Your task to perform on an android device: Turn off the flashlight Image 0: 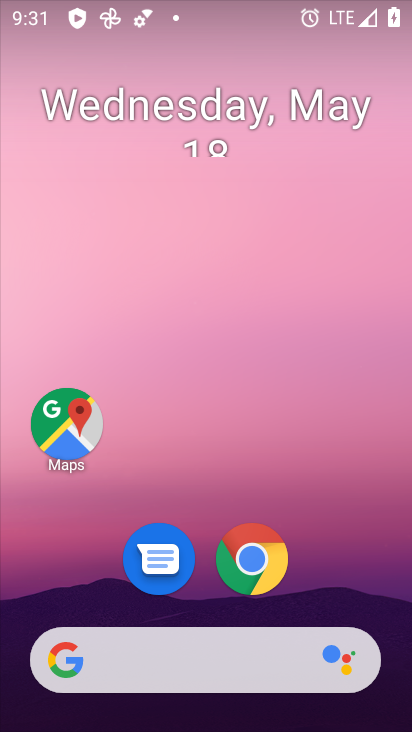
Step 0: drag from (335, 532) to (291, 29)
Your task to perform on an android device: Turn off the flashlight Image 1: 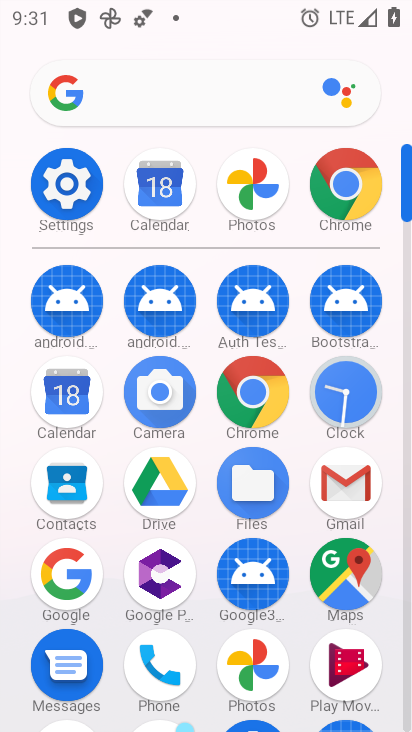
Step 1: drag from (16, 548) to (22, 166)
Your task to perform on an android device: Turn off the flashlight Image 2: 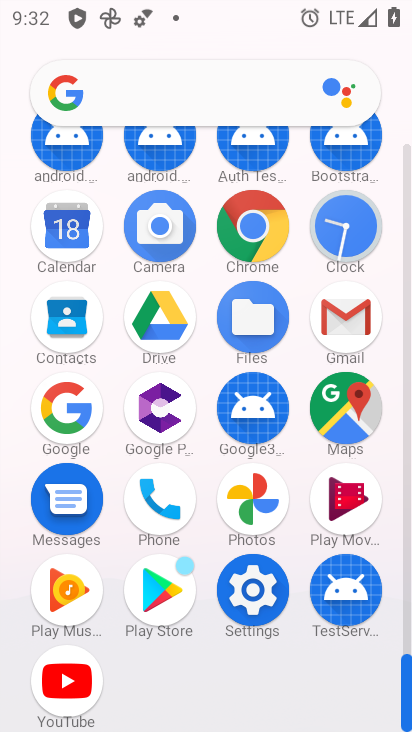
Step 2: click (251, 588)
Your task to perform on an android device: Turn off the flashlight Image 3: 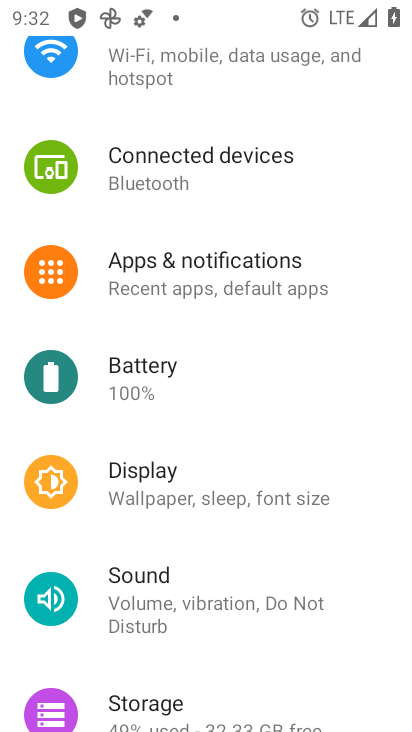
Step 3: drag from (291, 197) to (296, 633)
Your task to perform on an android device: Turn off the flashlight Image 4: 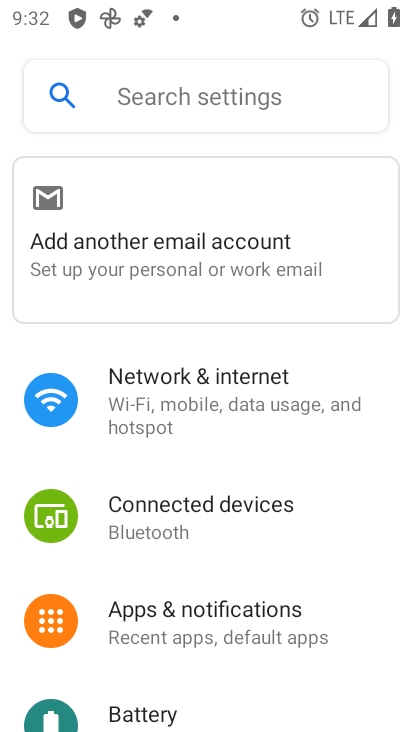
Step 4: click (252, 371)
Your task to perform on an android device: Turn off the flashlight Image 5: 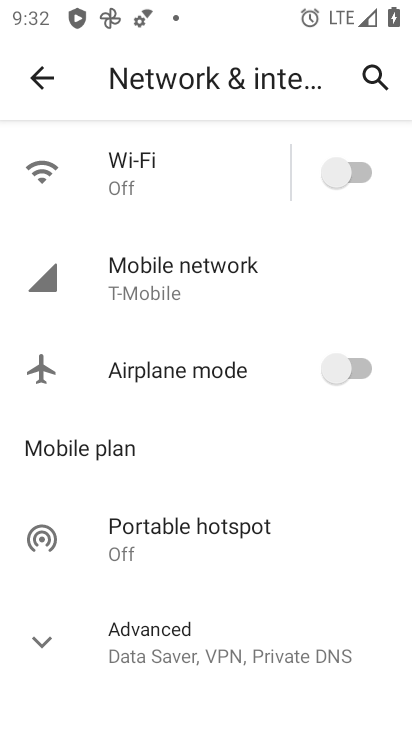
Step 5: click (46, 639)
Your task to perform on an android device: Turn off the flashlight Image 6: 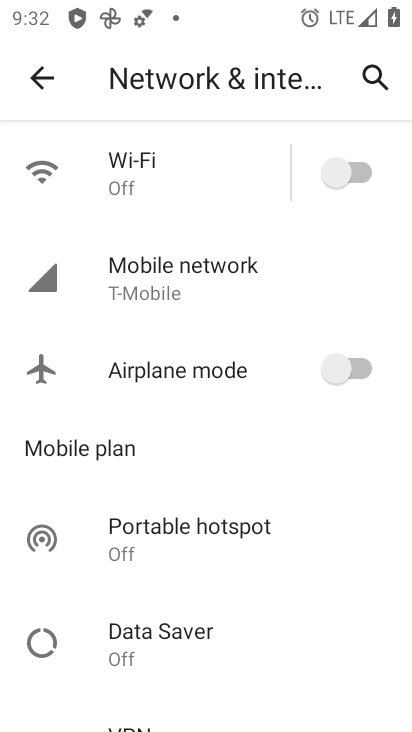
Step 6: task complete